Your task to perform on an android device: Do I have any events this weekend? Image 0: 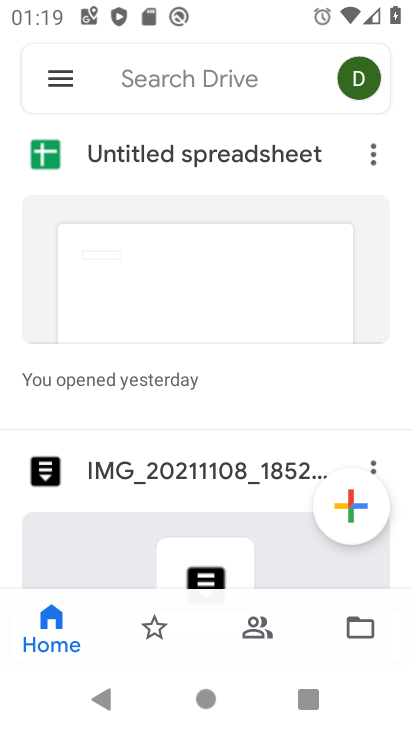
Step 0: press home button
Your task to perform on an android device: Do I have any events this weekend? Image 1: 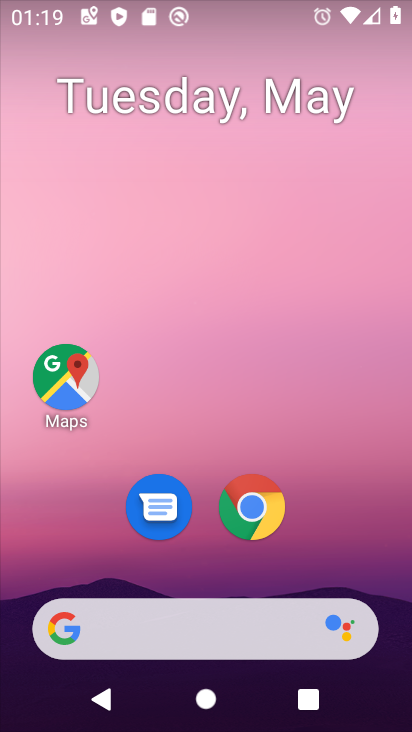
Step 1: drag from (206, 542) to (188, 229)
Your task to perform on an android device: Do I have any events this weekend? Image 2: 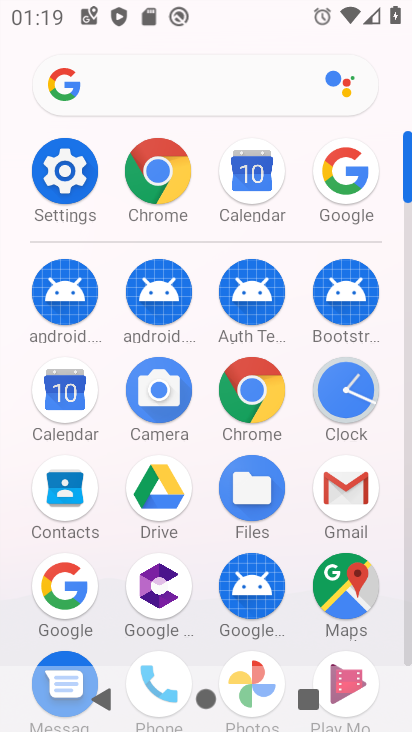
Step 2: click (242, 186)
Your task to perform on an android device: Do I have any events this weekend? Image 3: 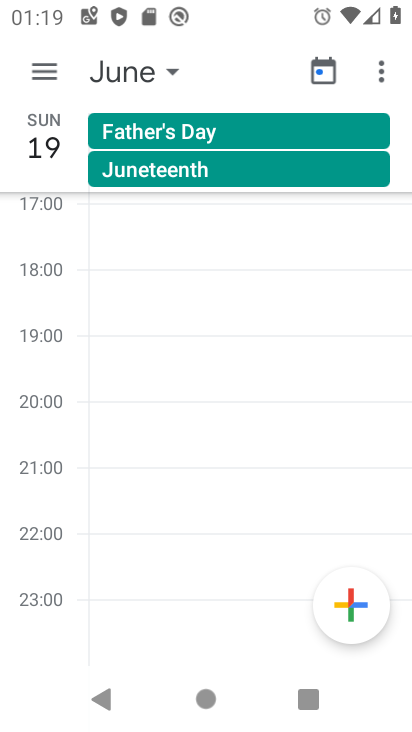
Step 3: click (124, 73)
Your task to perform on an android device: Do I have any events this weekend? Image 4: 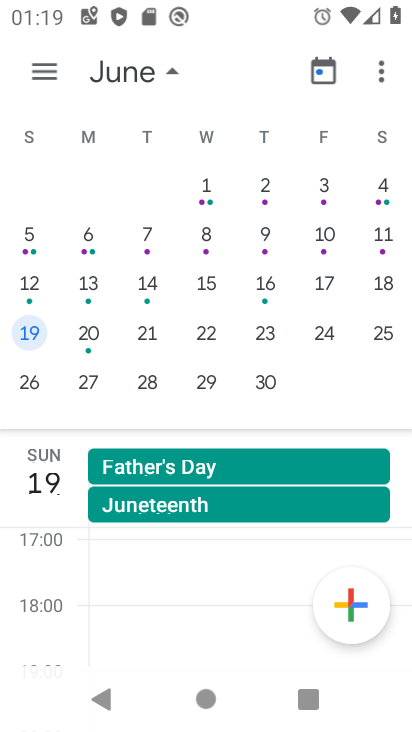
Step 4: drag from (68, 249) to (368, 255)
Your task to perform on an android device: Do I have any events this weekend? Image 5: 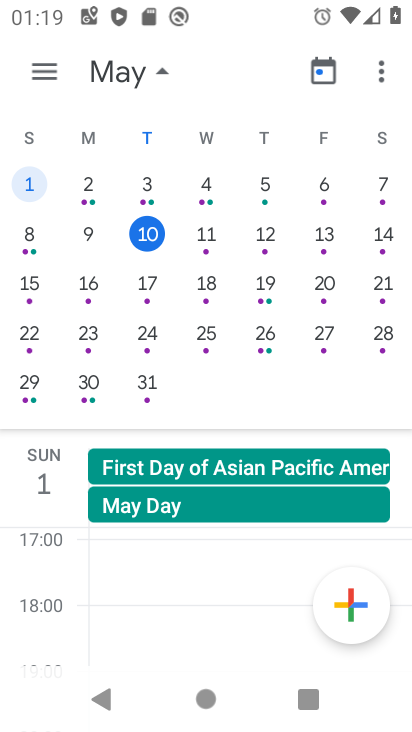
Step 5: click (379, 245)
Your task to perform on an android device: Do I have any events this weekend? Image 6: 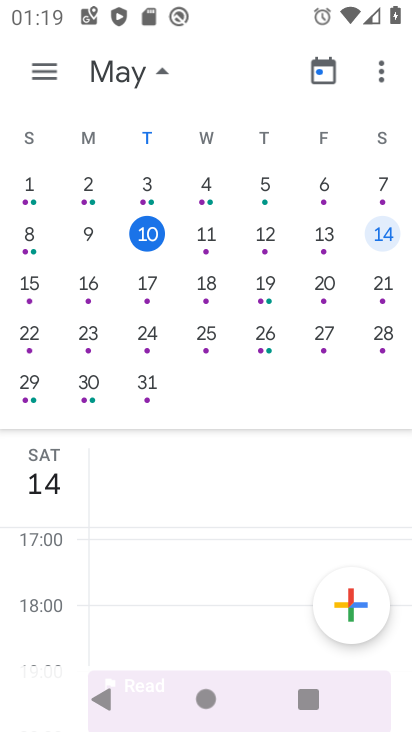
Step 6: task complete